Your task to perform on an android device: open sync settings in chrome Image 0: 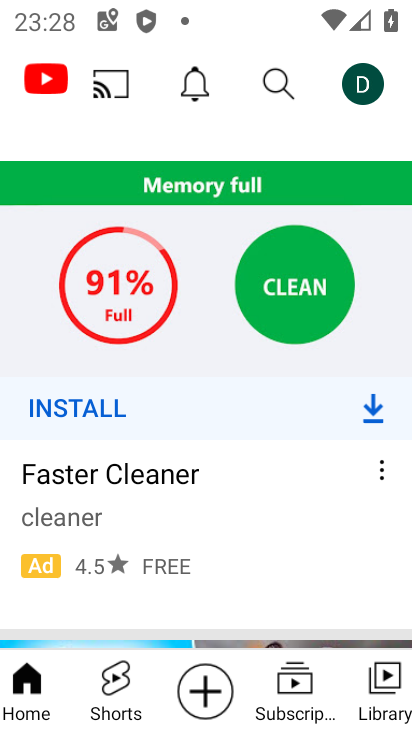
Step 0: press home button
Your task to perform on an android device: open sync settings in chrome Image 1: 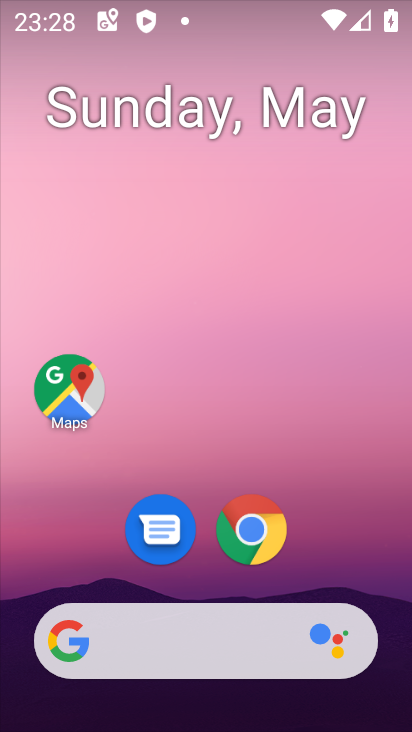
Step 1: click (257, 537)
Your task to perform on an android device: open sync settings in chrome Image 2: 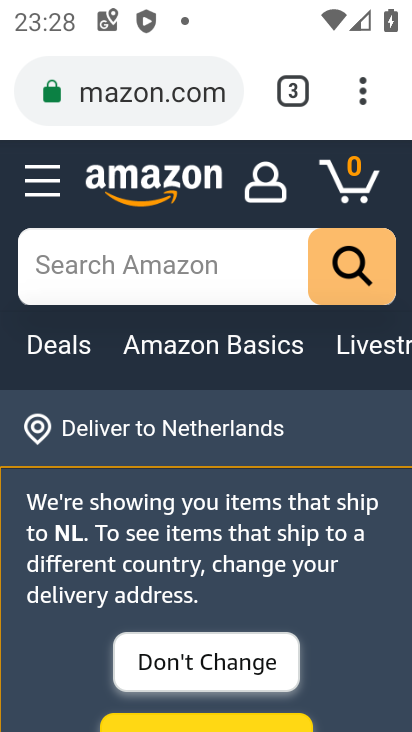
Step 2: click (358, 95)
Your task to perform on an android device: open sync settings in chrome Image 3: 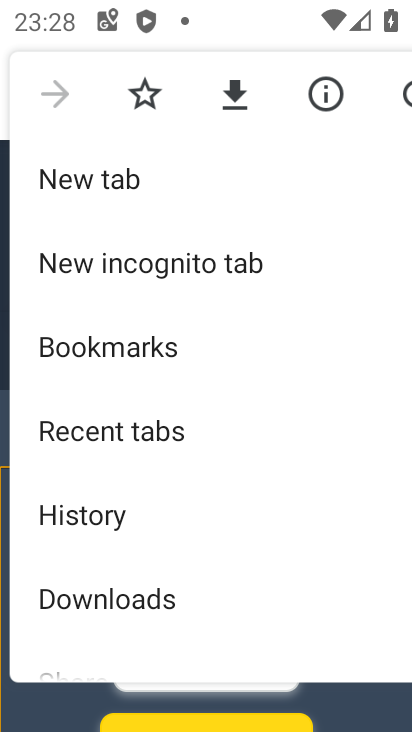
Step 3: click (129, 423)
Your task to perform on an android device: open sync settings in chrome Image 4: 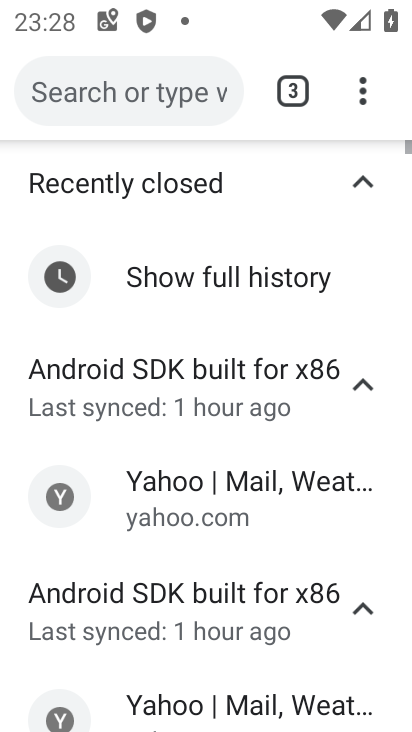
Step 4: task complete